Your task to perform on an android device: Open ESPN.com Image 0: 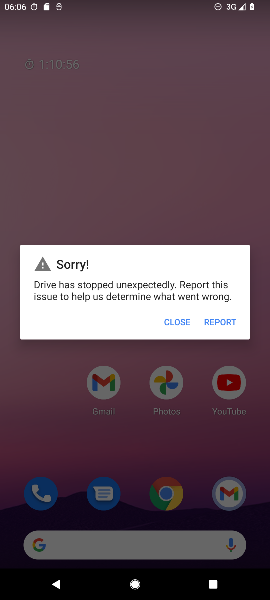
Step 0: press home button
Your task to perform on an android device: Open ESPN.com Image 1: 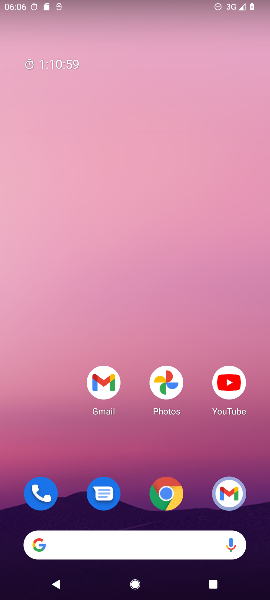
Step 1: drag from (61, 428) to (64, 88)
Your task to perform on an android device: Open ESPN.com Image 2: 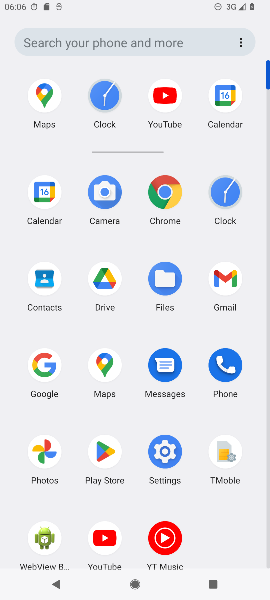
Step 2: click (158, 190)
Your task to perform on an android device: Open ESPN.com Image 3: 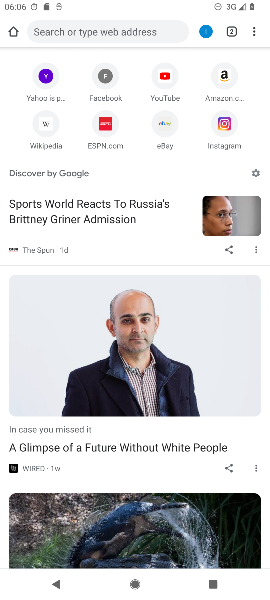
Step 3: click (109, 22)
Your task to perform on an android device: Open ESPN.com Image 4: 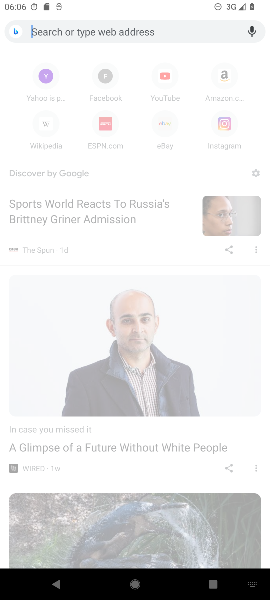
Step 4: type "espn.com"
Your task to perform on an android device: Open ESPN.com Image 5: 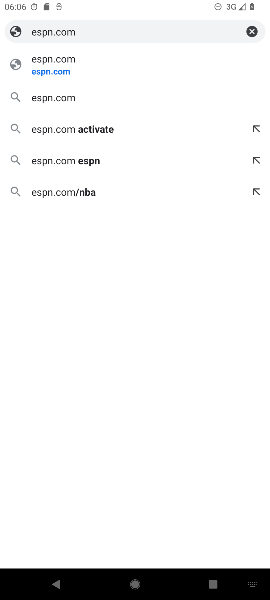
Step 5: click (75, 69)
Your task to perform on an android device: Open ESPN.com Image 6: 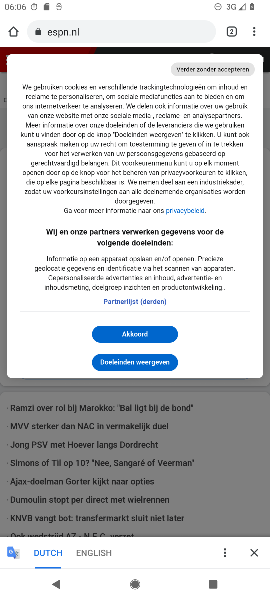
Step 6: task complete